Your task to perform on an android device: Go to wifi settings Image 0: 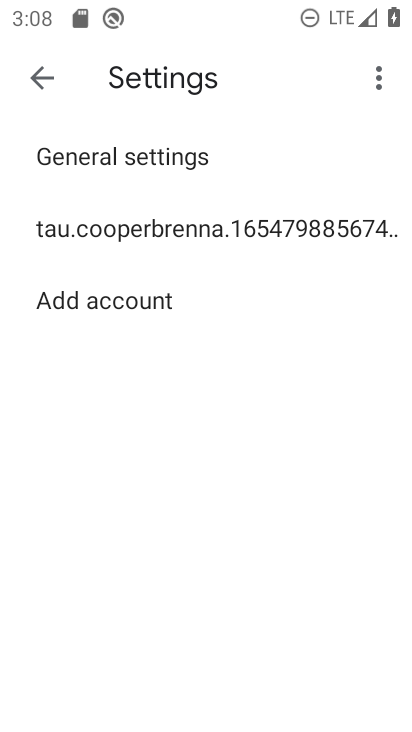
Step 0: press home button
Your task to perform on an android device: Go to wifi settings Image 1: 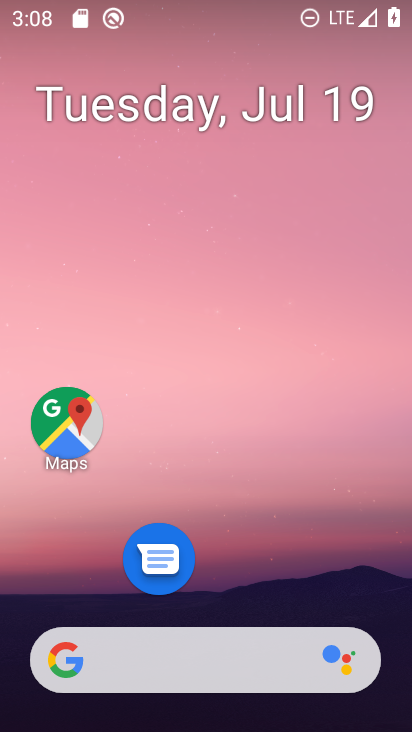
Step 1: drag from (260, 611) to (281, 92)
Your task to perform on an android device: Go to wifi settings Image 2: 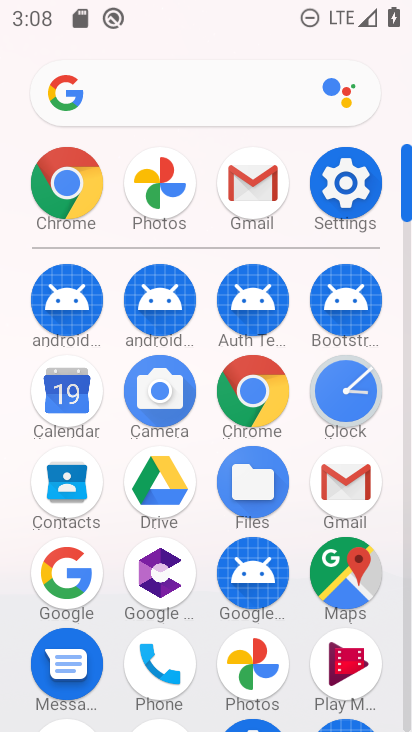
Step 2: click (346, 190)
Your task to perform on an android device: Go to wifi settings Image 3: 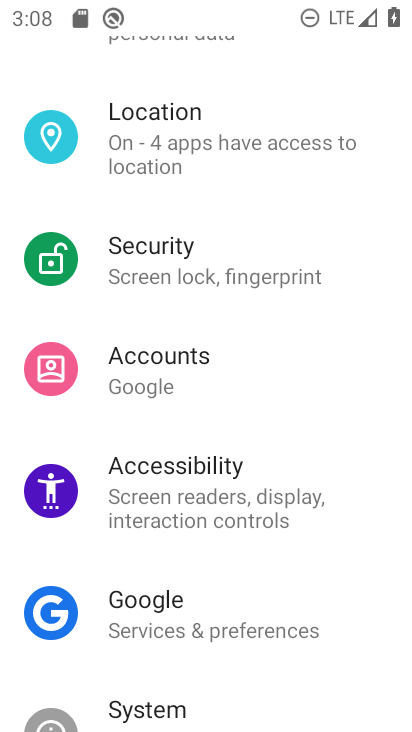
Step 3: drag from (196, 525) to (373, 692)
Your task to perform on an android device: Go to wifi settings Image 4: 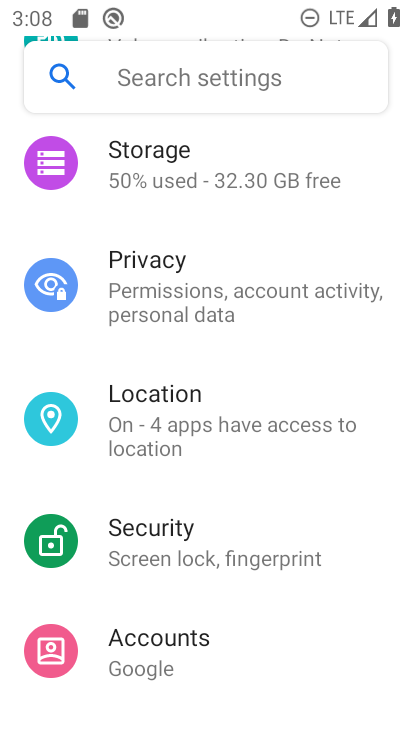
Step 4: drag from (293, 193) to (261, 725)
Your task to perform on an android device: Go to wifi settings Image 5: 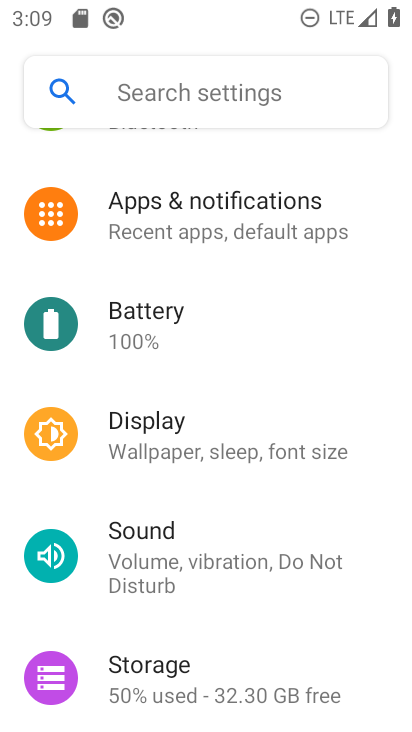
Step 5: drag from (219, 275) to (152, 721)
Your task to perform on an android device: Go to wifi settings Image 6: 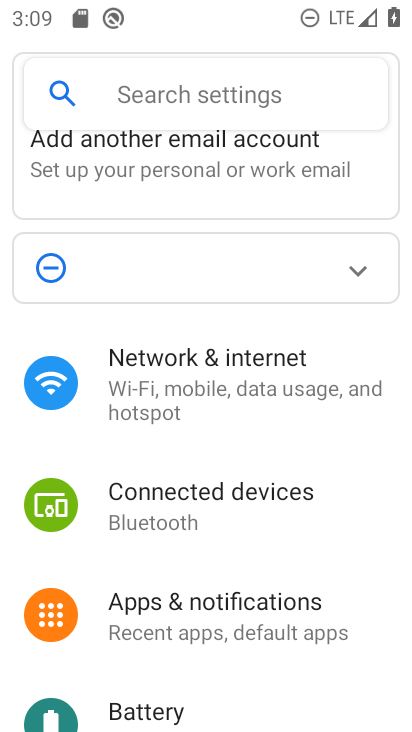
Step 6: click (256, 379)
Your task to perform on an android device: Go to wifi settings Image 7: 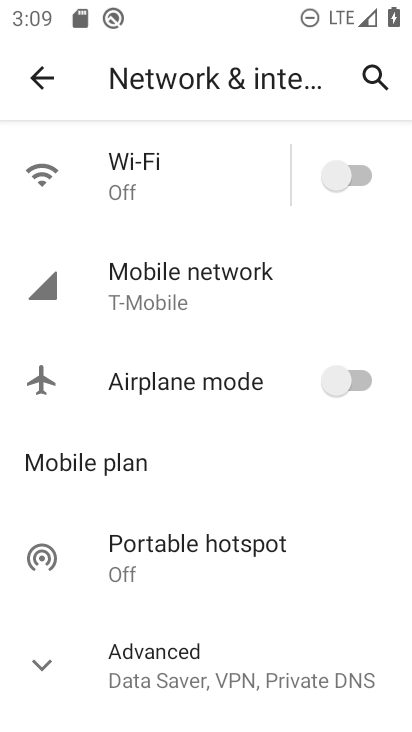
Step 7: click (174, 204)
Your task to perform on an android device: Go to wifi settings Image 8: 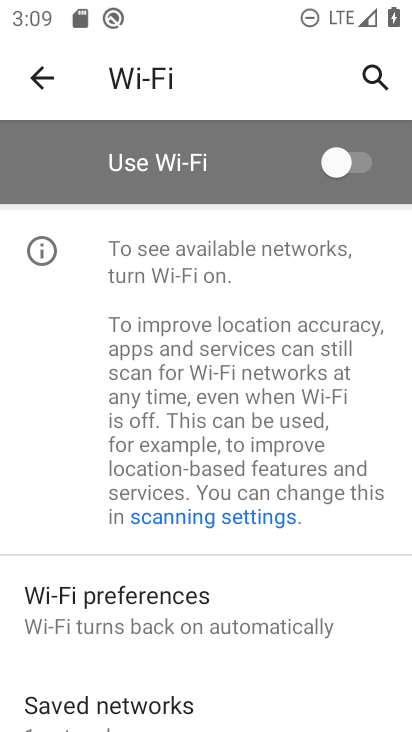
Step 8: task complete